Your task to perform on an android device: Open Google Chrome and click the shortcut for Amazon.com Image 0: 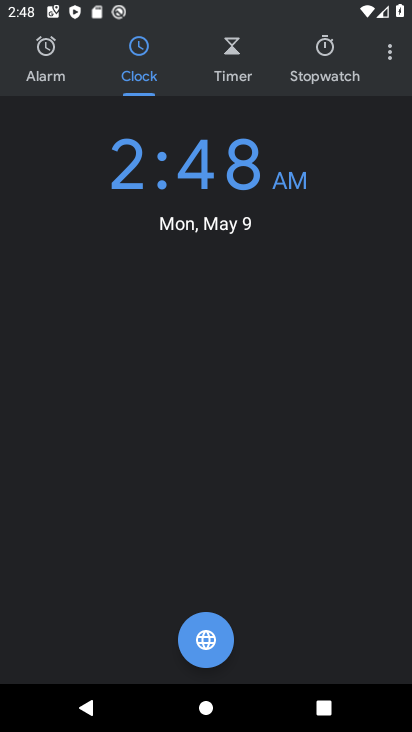
Step 0: press home button
Your task to perform on an android device: Open Google Chrome and click the shortcut for Amazon.com Image 1: 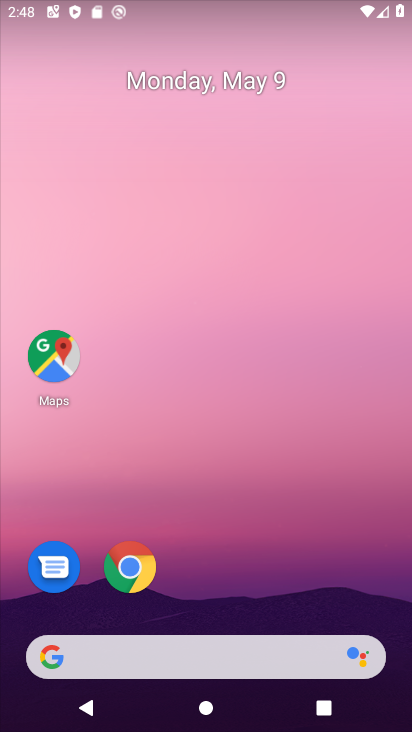
Step 1: click (127, 571)
Your task to perform on an android device: Open Google Chrome and click the shortcut for Amazon.com Image 2: 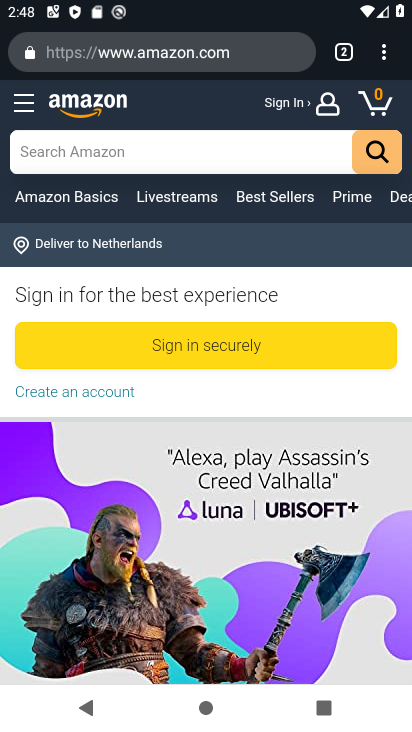
Step 2: task complete